Your task to perform on an android device: stop showing notifications on the lock screen Image 0: 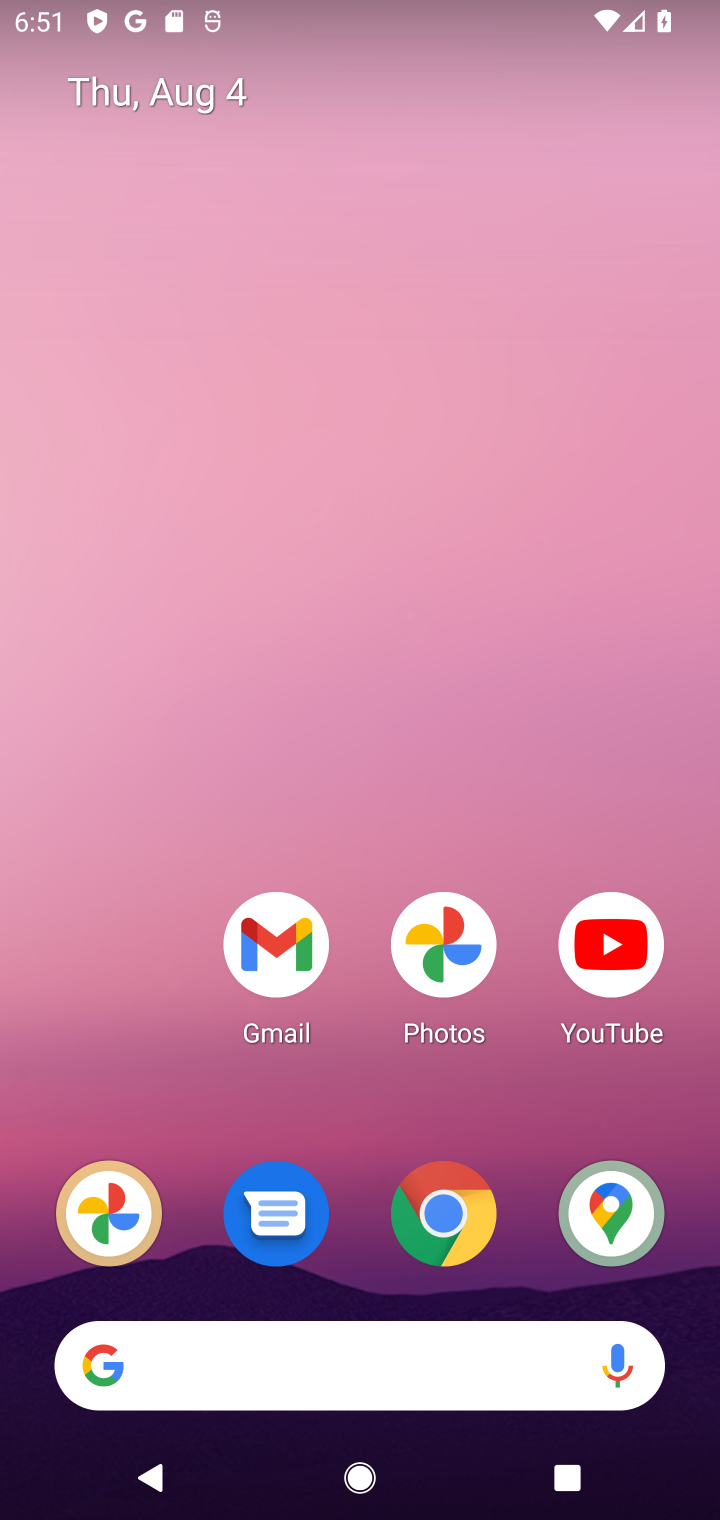
Step 0: drag from (340, 1122) to (235, 170)
Your task to perform on an android device: stop showing notifications on the lock screen Image 1: 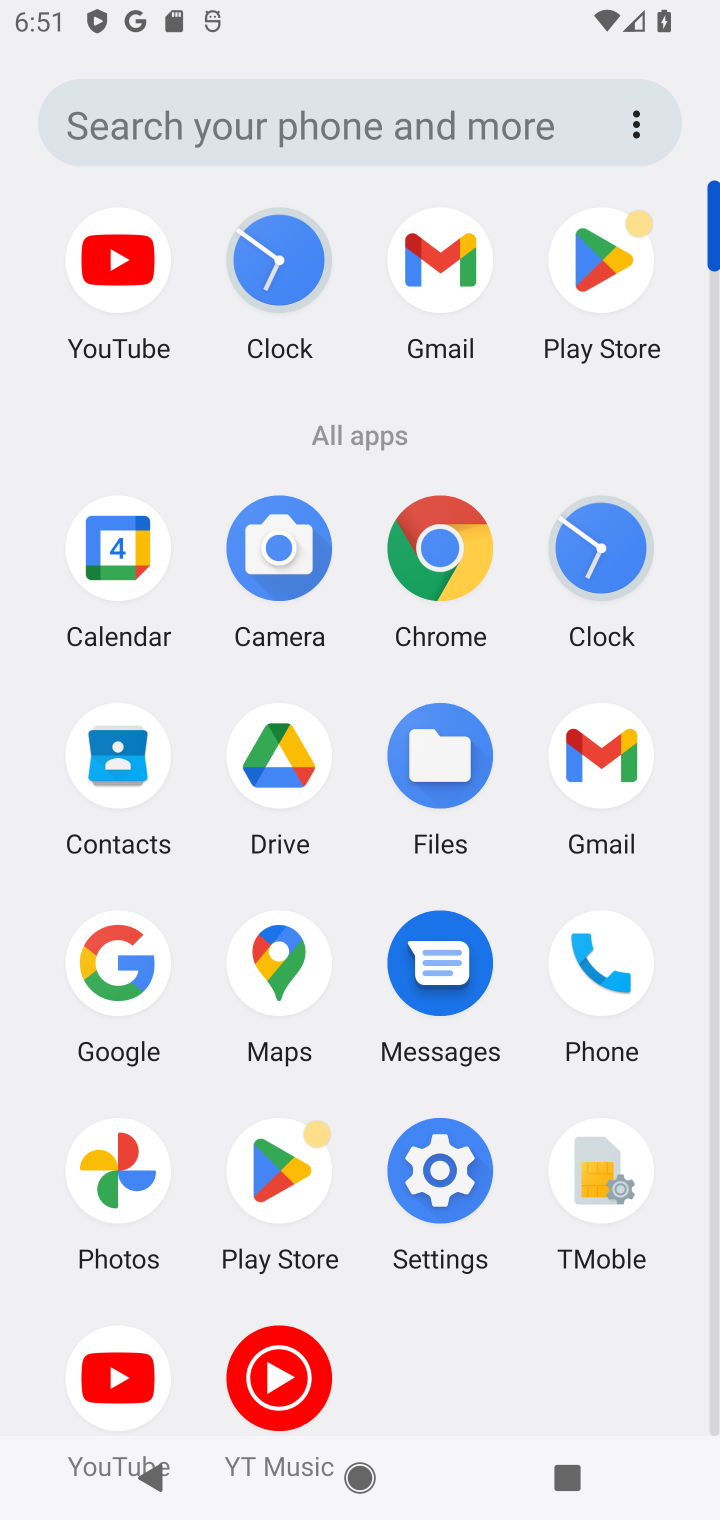
Step 1: click (462, 1181)
Your task to perform on an android device: stop showing notifications on the lock screen Image 2: 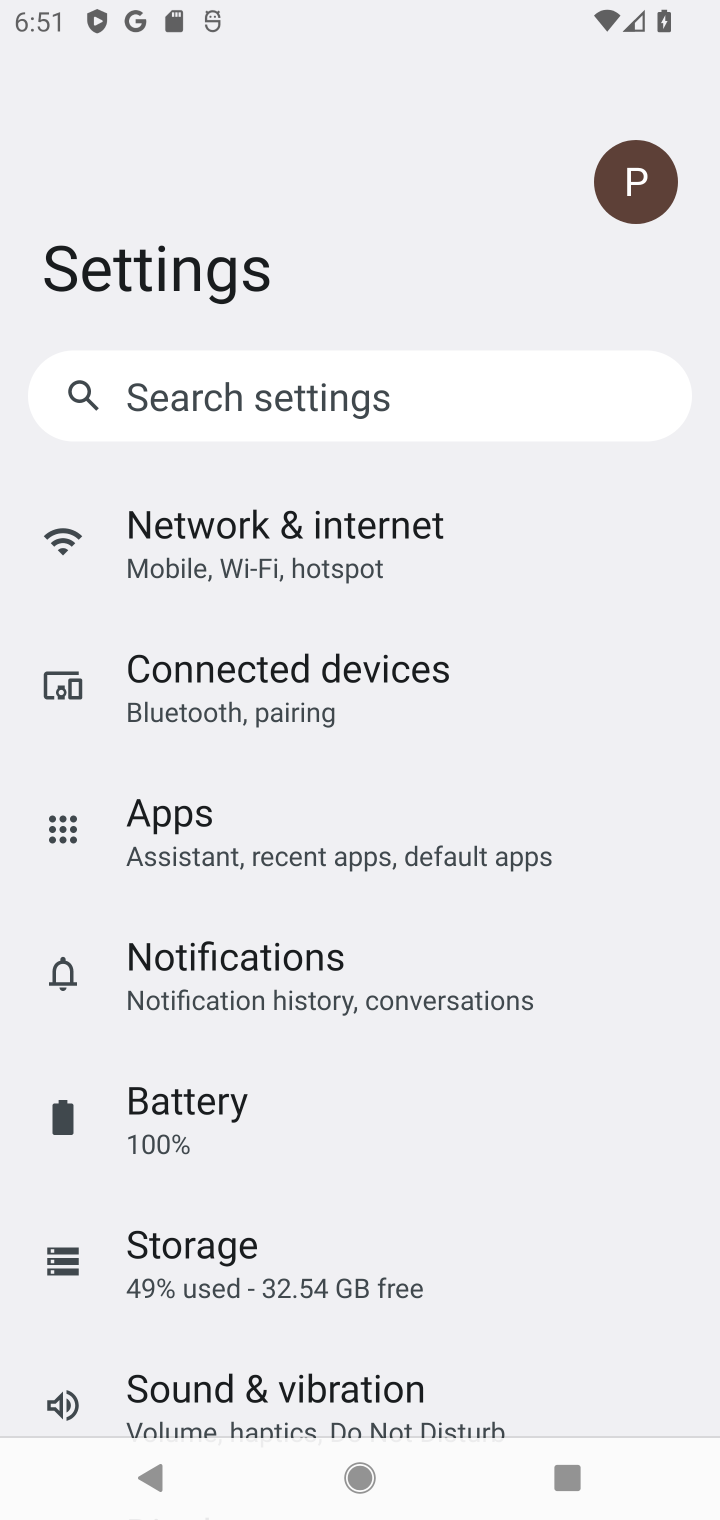
Step 2: click (420, 962)
Your task to perform on an android device: stop showing notifications on the lock screen Image 3: 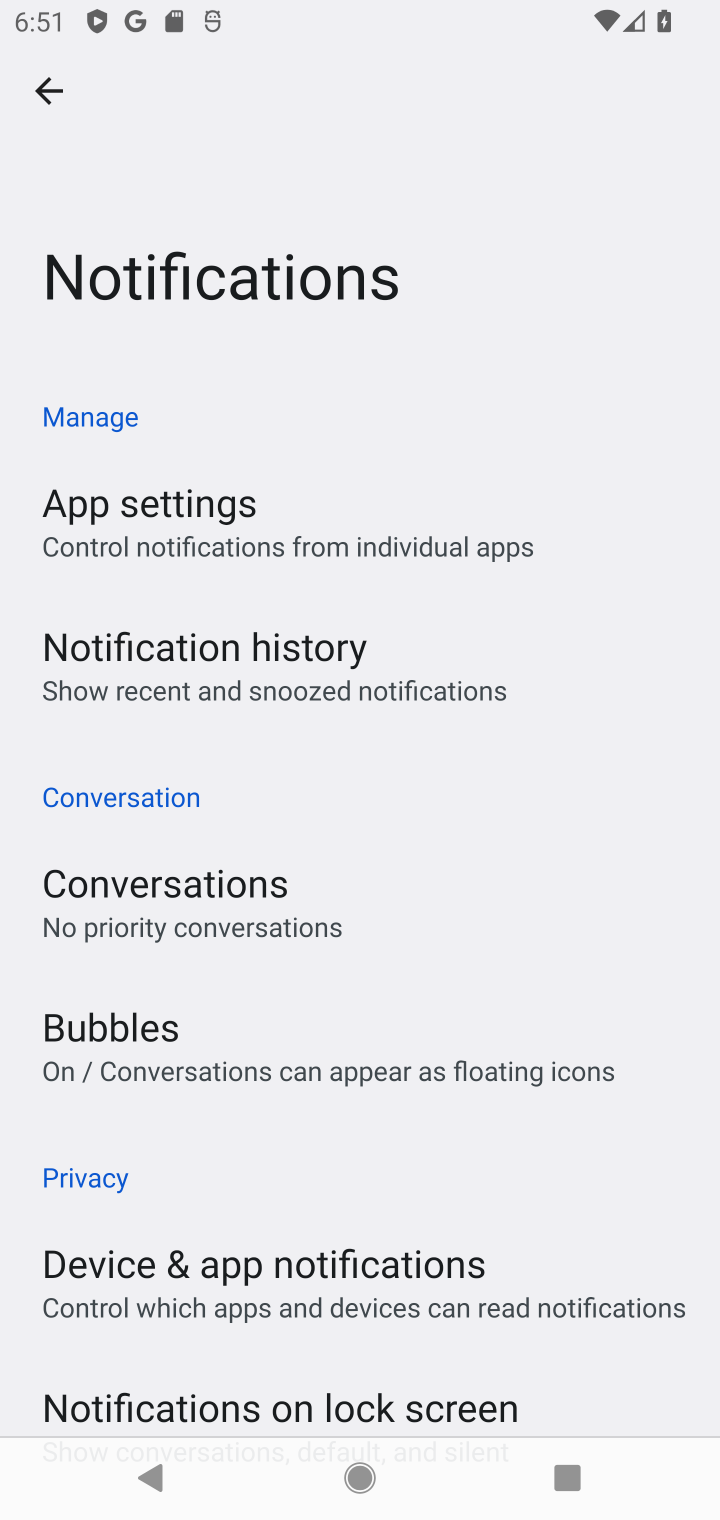
Step 3: click (373, 1390)
Your task to perform on an android device: stop showing notifications on the lock screen Image 4: 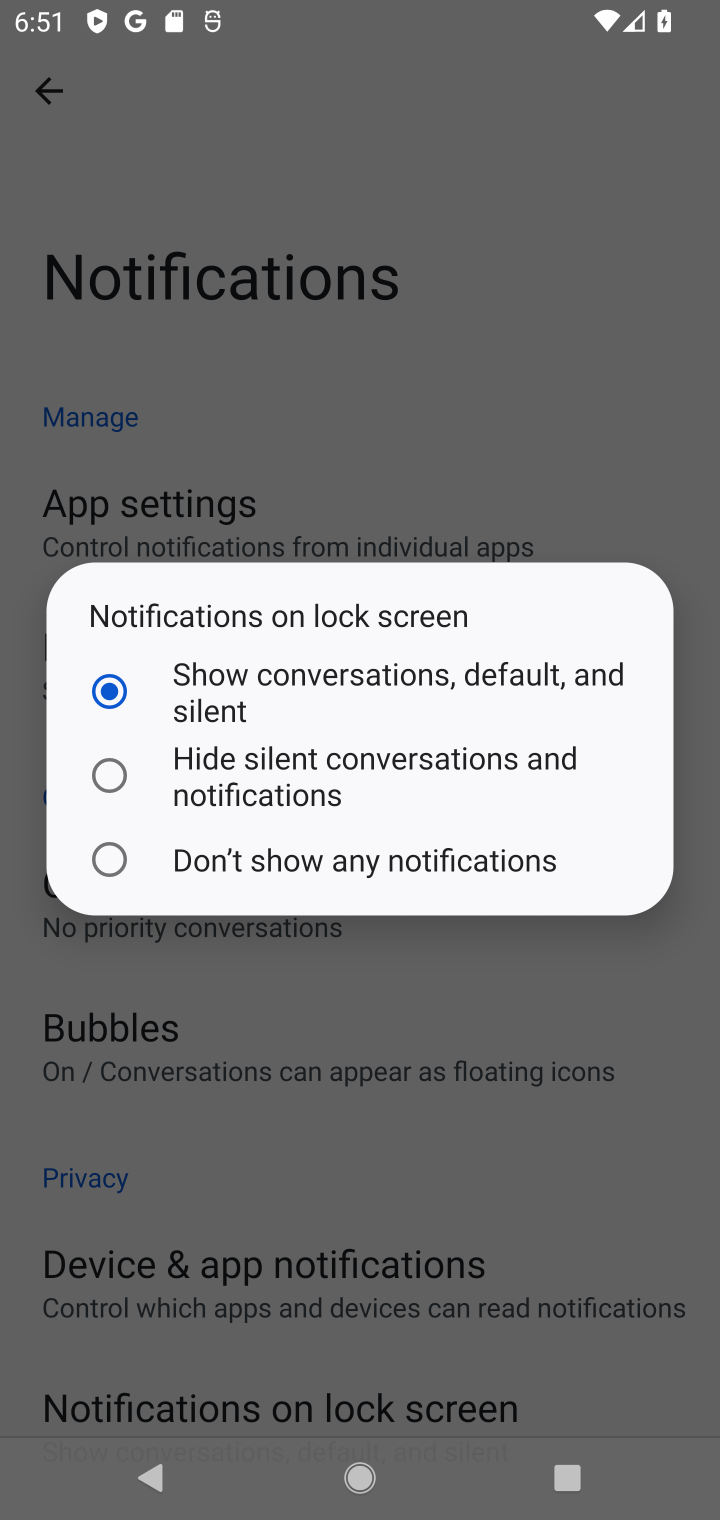
Step 4: click (453, 875)
Your task to perform on an android device: stop showing notifications on the lock screen Image 5: 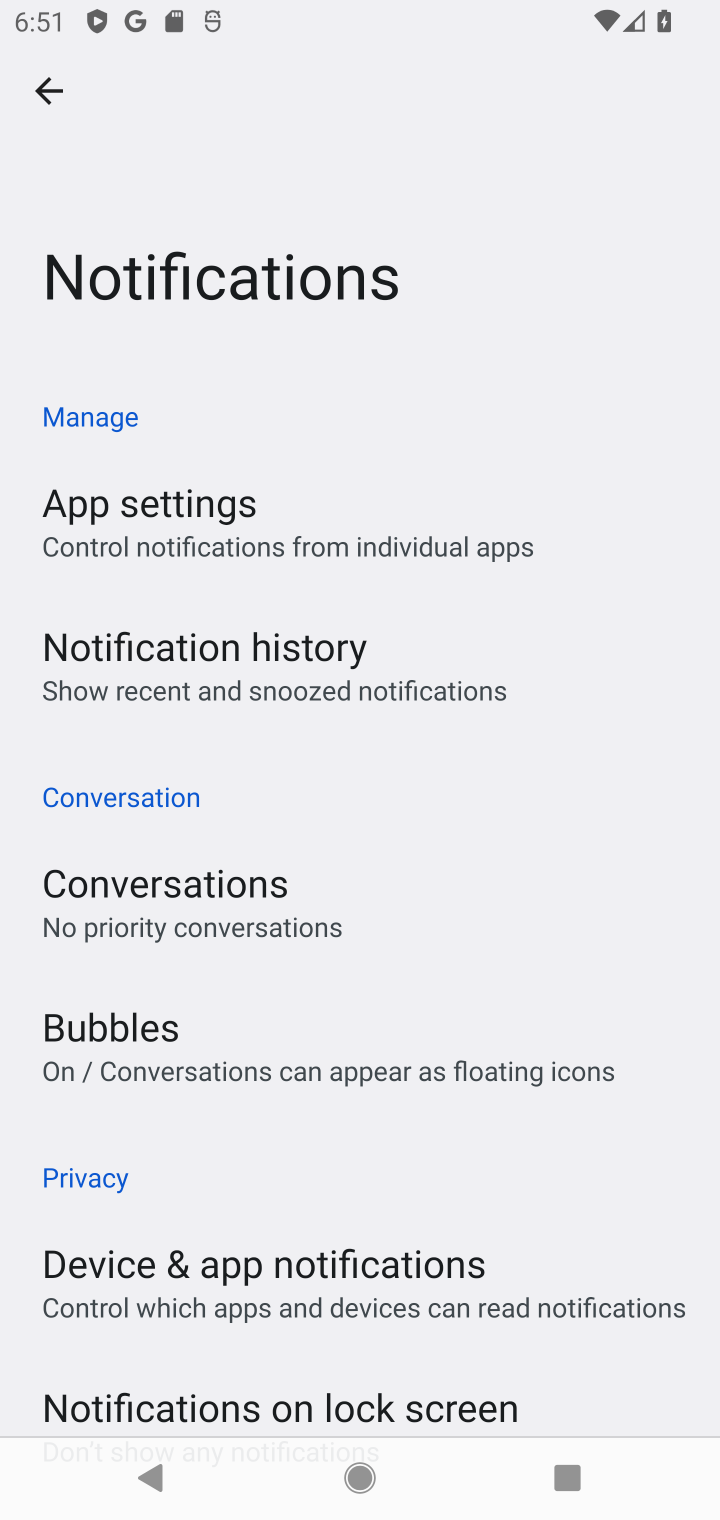
Step 5: task complete